Your task to perform on an android device: Clear the shopping cart on ebay. Add logitech g pro to the cart on ebay, then select checkout. Image 0: 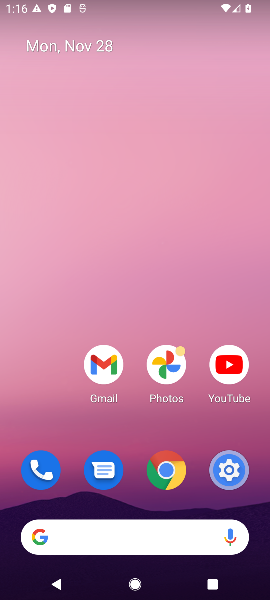
Step 0: click (111, 538)
Your task to perform on an android device: Clear the shopping cart on ebay. Add logitech g pro to the cart on ebay, then select checkout. Image 1: 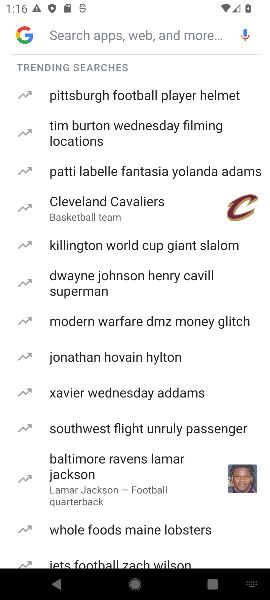
Step 1: type "ebay.com"
Your task to perform on an android device: Clear the shopping cart on ebay. Add logitech g pro to the cart on ebay, then select checkout. Image 2: 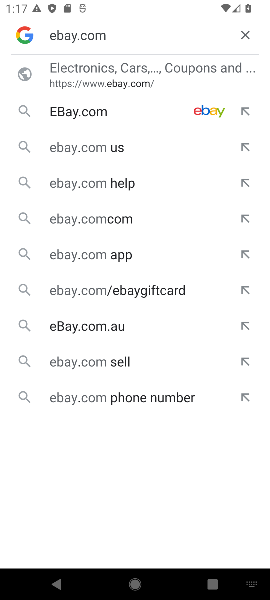
Step 2: click (119, 108)
Your task to perform on an android device: Clear the shopping cart on ebay. Add logitech g pro to the cart on ebay, then select checkout. Image 3: 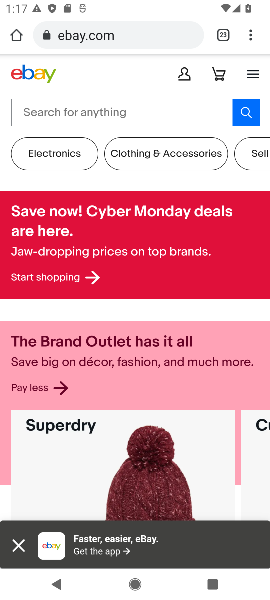
Step 3: click (79, 112)
Your task to perform on an android device: Clear the shopping cart on ebay. Add logitech g pro to the cart on ebay, then select checkout. Image 4: 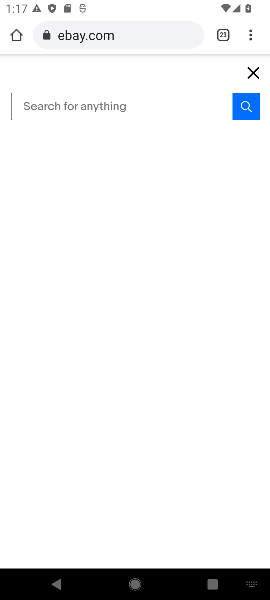
Step 4: type "logitech g pro"
Your task to perform on an android device: Clear the shopping cart on ebay. Add logitech g pro to the cart on ebay, then select checkout. Image 5: 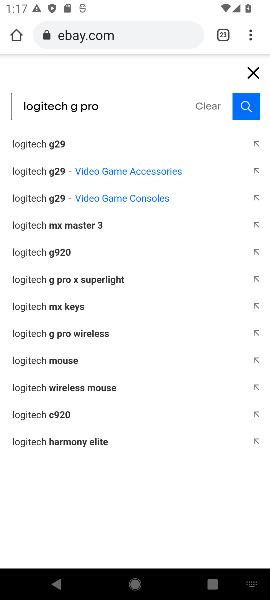
Step 5: click (241, 108)
Your task to perform on an android device: Clear the shopping cart on ebay. Add logitech g pro to the cart on ebay, then select checkout. Image 6: 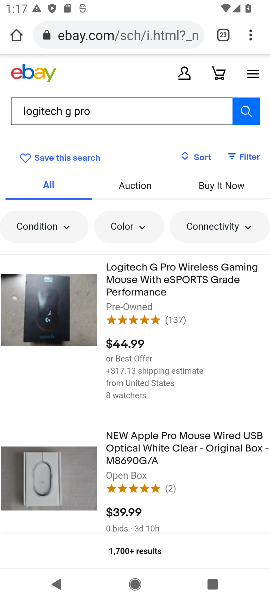
Step 6: click (117, 291)
Your task to perform on an android device: Clear the shopping cart on ebay. Add logitech g pro to the cart on ebay, then select checkout. Image 7: 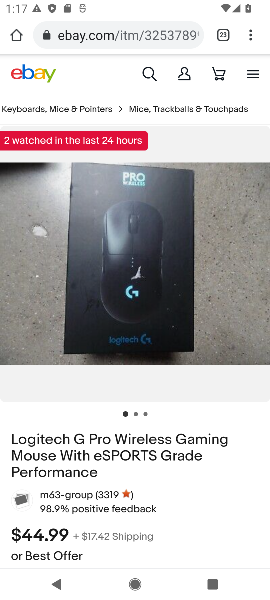
Step 7: drag from (183, 510) to (192, 345)
Your task to perform on an android device: Clear the shopping cart on ebay. Add logitech g pro to the cart on ebay, then select checkout. Image 8: 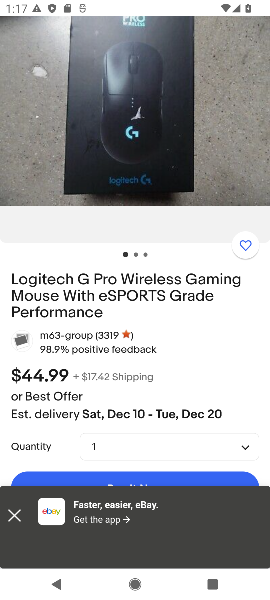
Step 8: click (118, 475)
Your task to perform on an android device: Clear the shopping cart on ebay. Add logitech g pro to the cart on ebay, then select checkout. Image 9: 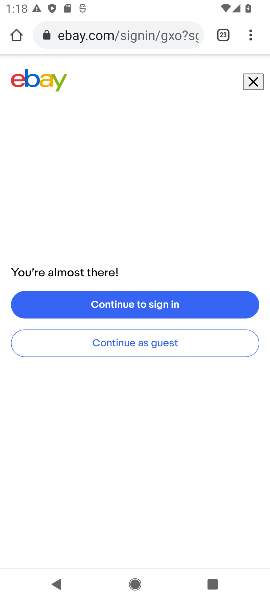
Step 9: click (248, 85)
Your task to perform on an android device: Clear the shopping cart on ebay. Add logitech g pro to the cart on ebay, then select checkout. Image 10: 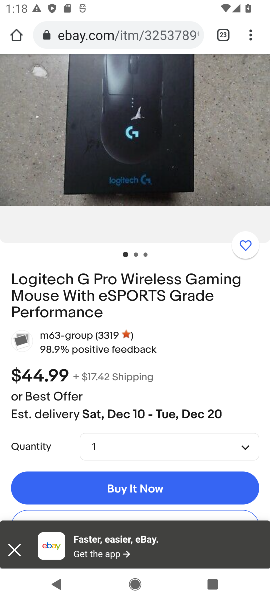
Step 10: click (14, 554)
Your task to perform on an android device: Clear the shopping cart on ebay. Add logitech g pro to the cart on ebay, then select checkout. Image 11: 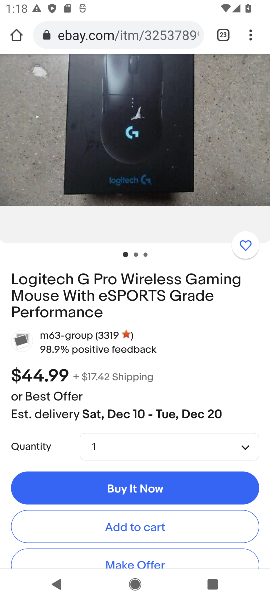
Step 11: click (119, 523)
Your task to perform on an android device: Clear the shopping cart on ebay. Add logitech g pro to the cart on ebay, then select checkout. Image 12: 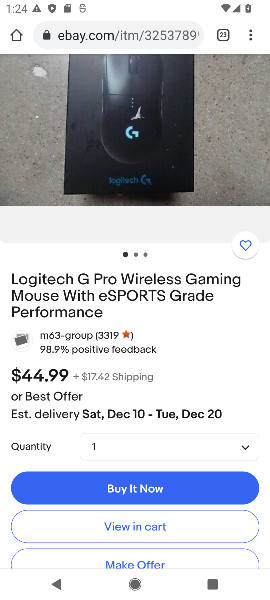
Step 12: click (123, 523)
Your task to perform on an android device: Clear the shopping cart on ebay. Add logitech g pro to the cart on ebay, then select checkout. Image 13: 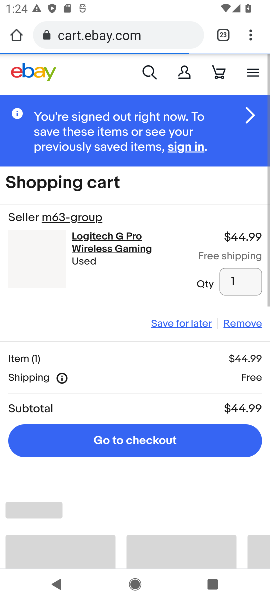
Step 13: task complete